Your task to perform on an android device: Go to Android settings Image 0: 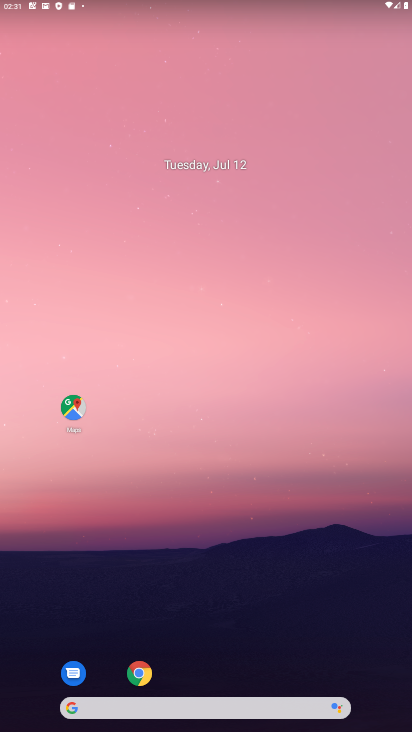
Step 0: drag from (235, 623) to (240, 41)
Your task to perform on an android device: Go to Android settings Image 1: 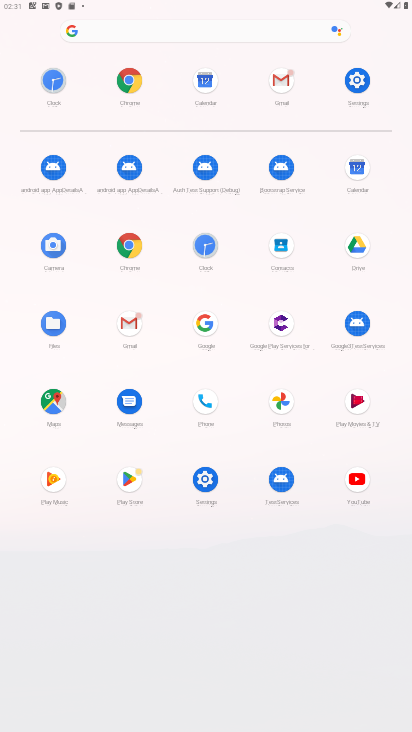
Step 1: click (356, 70)
Your task to perform on an android device: Go to Android settings Image 2: 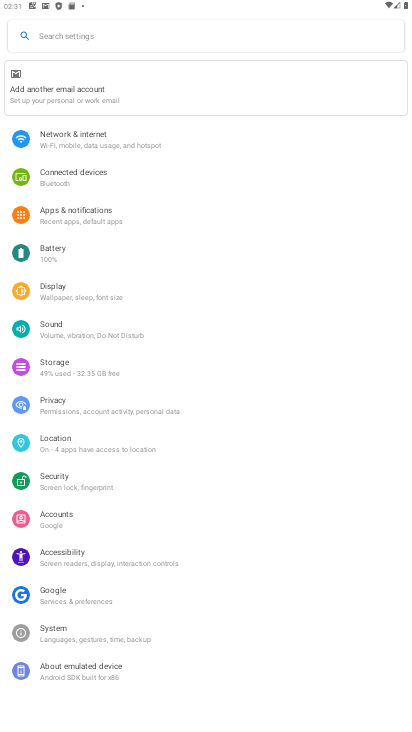
Step 2: task complete